Your task to perform on an android device: allow notifications from all sites in the chrome app Image 0: 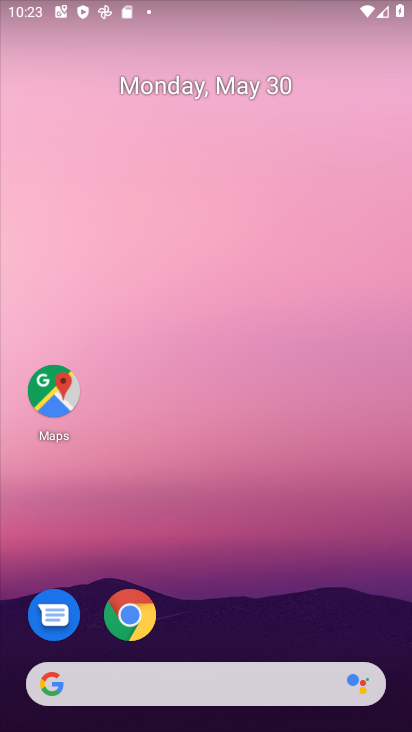
Step 0: click (133, 615)
Your task to perform on an android device: allow notifications from all sites in the chrome app Image 1: 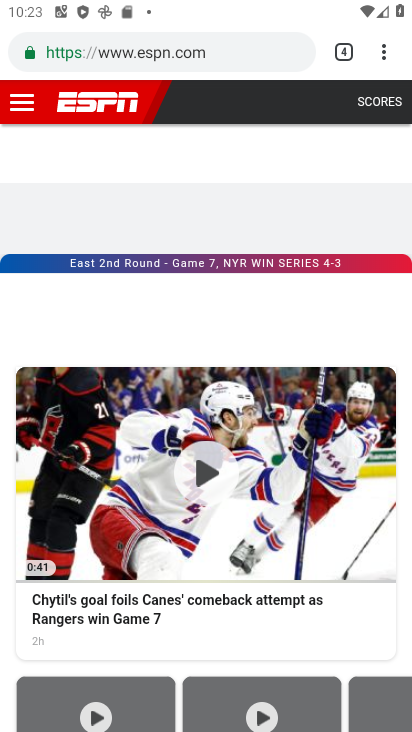
Step 1: click (384, 47)
Your task to perform on an android device: allow notifications from all sites in the chrome app Image 2: 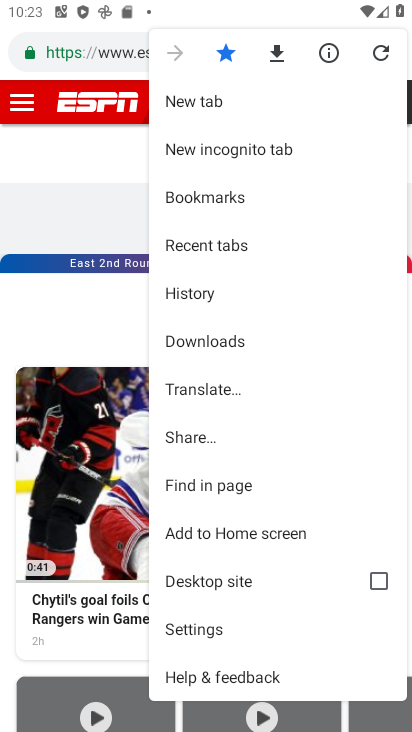
Step 2: click (260, 628)
Your task to perform on an android device: allow notifications from all sites in the chrome app Image 3: 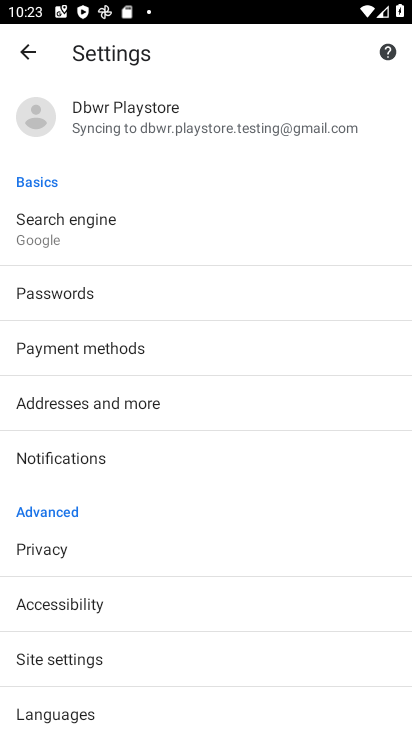
Step 3: click (121, 653)
Your task to perform on an android device: allow notifications from all sites in the chrome app Image 4: 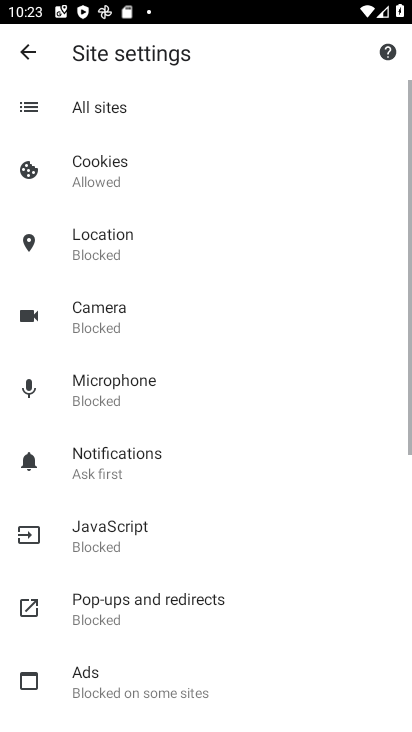
Step 4: click (128, 102)
Your task to perform on an android device: allow notifications from all sites in the chrome app Image 5: 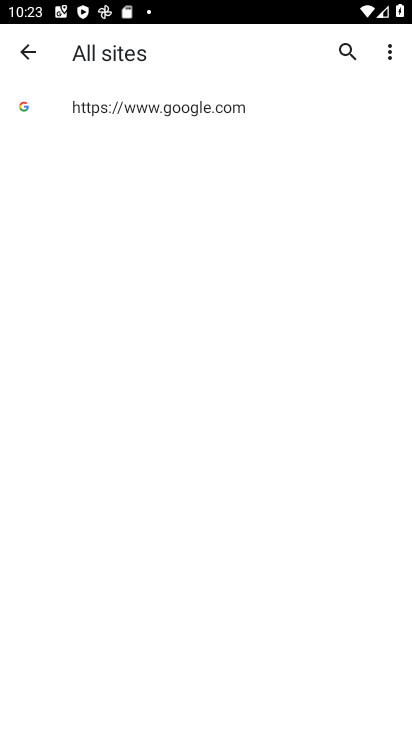
Step 5: click (142, 109)
Your task to perform on an android device: allow notifications from all sites in the chrome app Image 6: 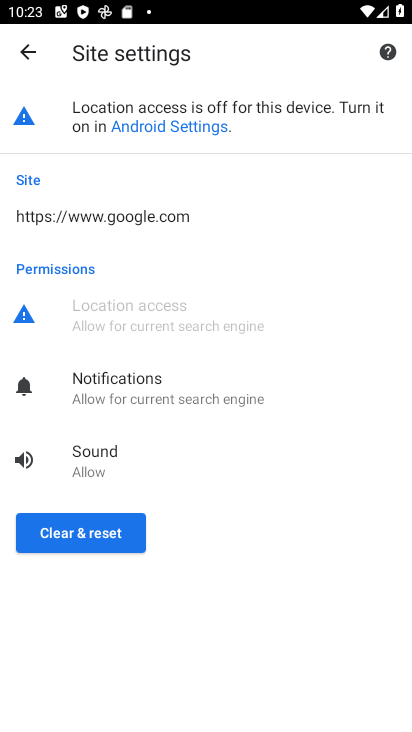
Step 6: task complete